Your task to perform on an android device: set the stopwatch Image 0: 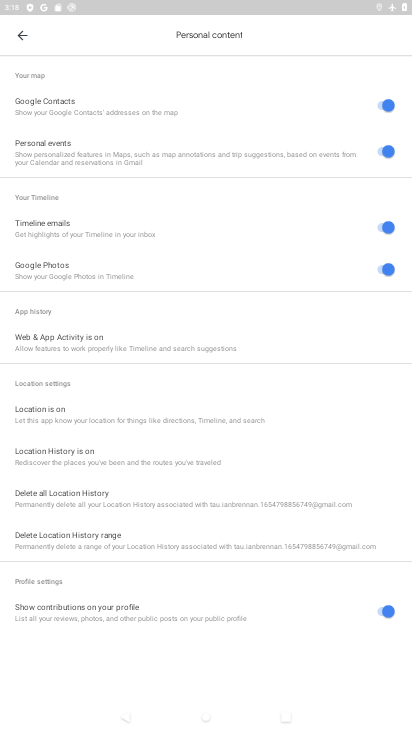
Step 0: press home button
Your task to perform on an android device: set the stopwatch Image 1: 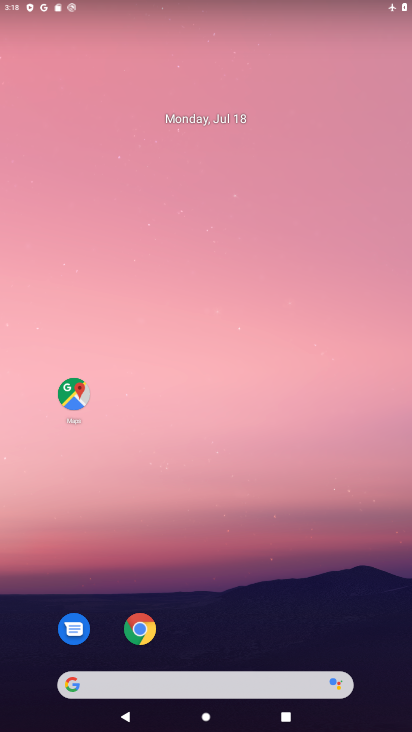
Step 1: drag from (242, 659) to (211, 56)
Your task to perform on an android device: set the stopwatch Image 2: 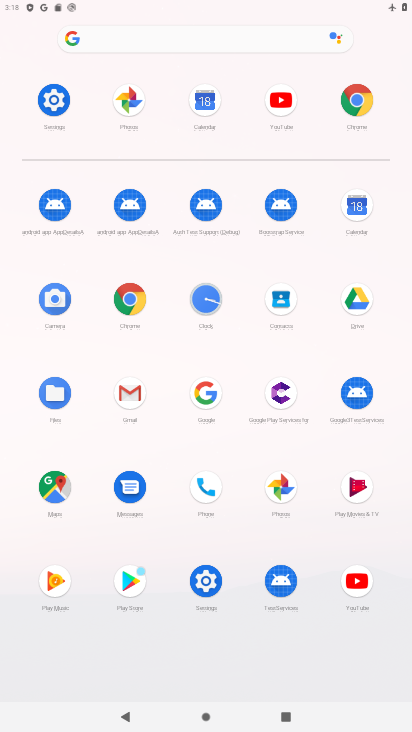
Step 2: click (54, 95)
Your task to perform on an android device: set the stopwatch Image 3: 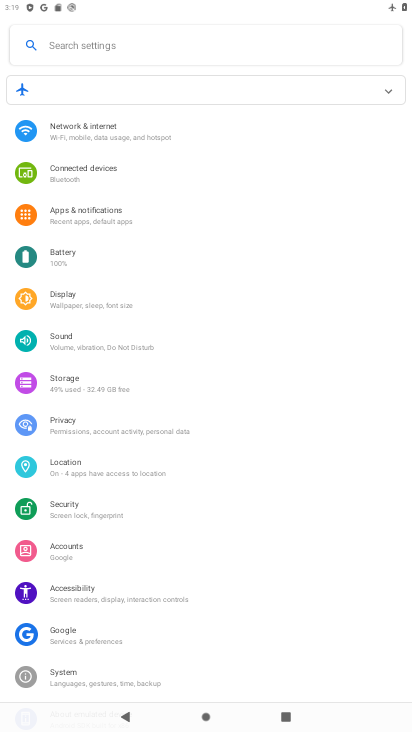
Step 3: press home button
Your task to perform on an android device: set the stopwatch Image 4: 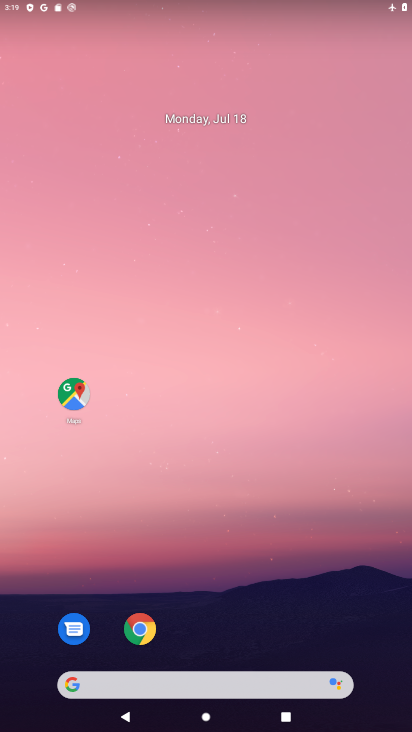
Step 4: drag from (190, 621) to (121, 98)
Your task to perform on an android device: set the stopwatch Image 5: 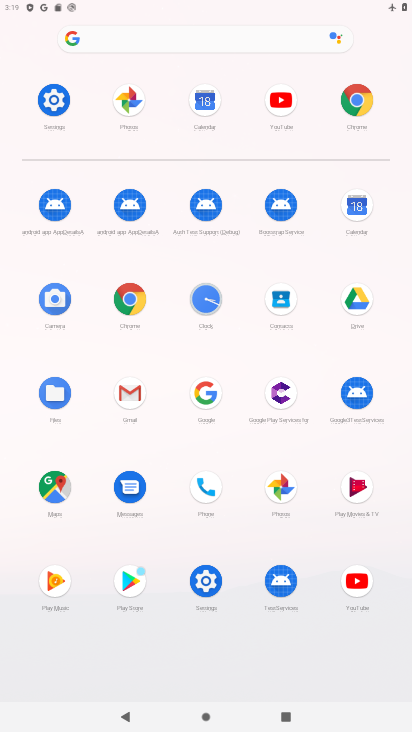
Step 5: click (214, 302)
Your task to perform on an android device: set the stopwatch Image 6: 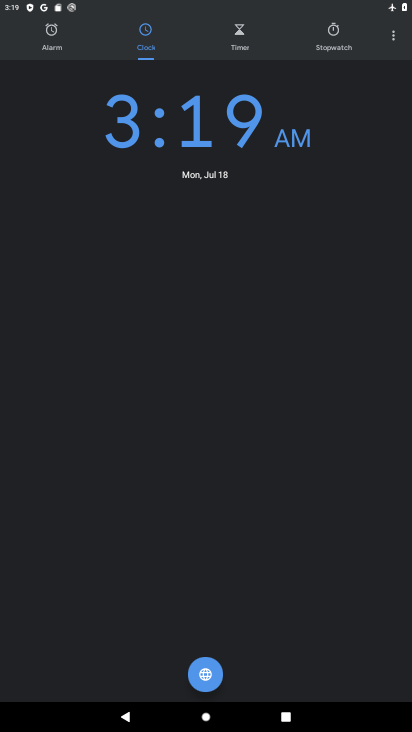
Step 6: click (348, 38)
Your task to perform on an android device: set the stopwatch Image 7: 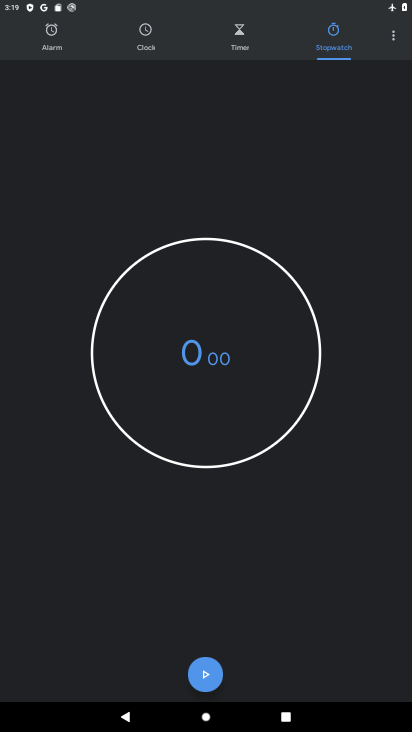
Step 7: click (196, 688)
Your task to perform on an android device: set the stopwatch Image 8: 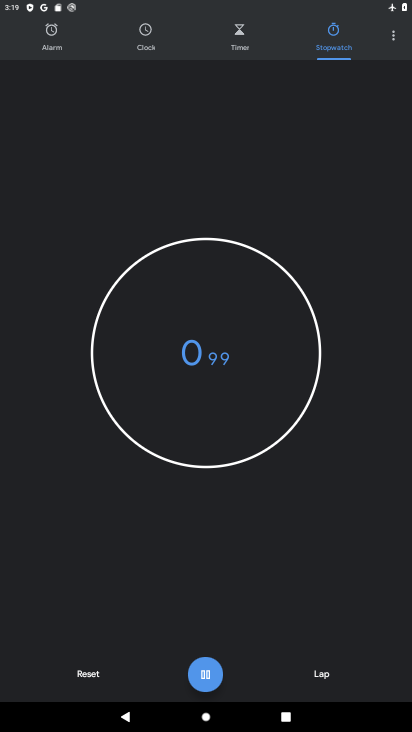
Step 8: click (209, 679)
Your task to perform on an android device: set the stopwatch Image 9: 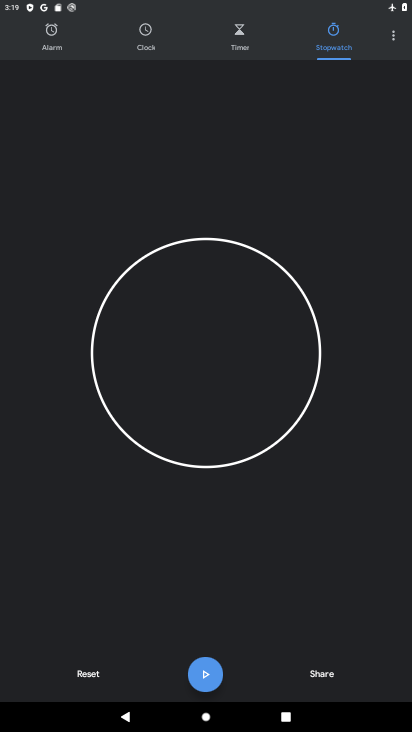
Step 9: click (209, 679)
Your task to perform on an android device: set the stopwatch Image 10: 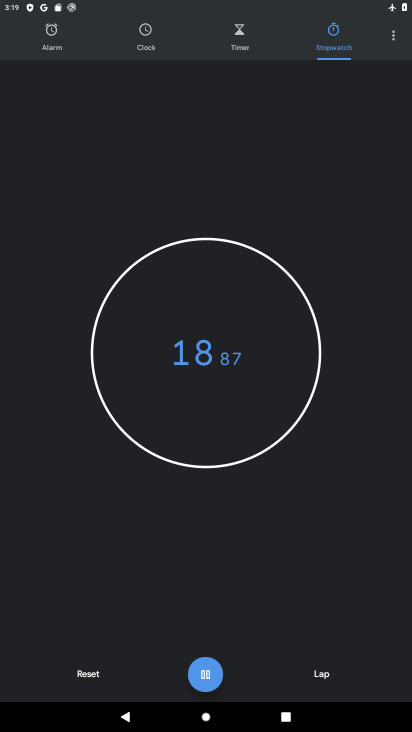
Step 10: task complete